Your task to perform on an android device: Do I have any events today? Image 0: 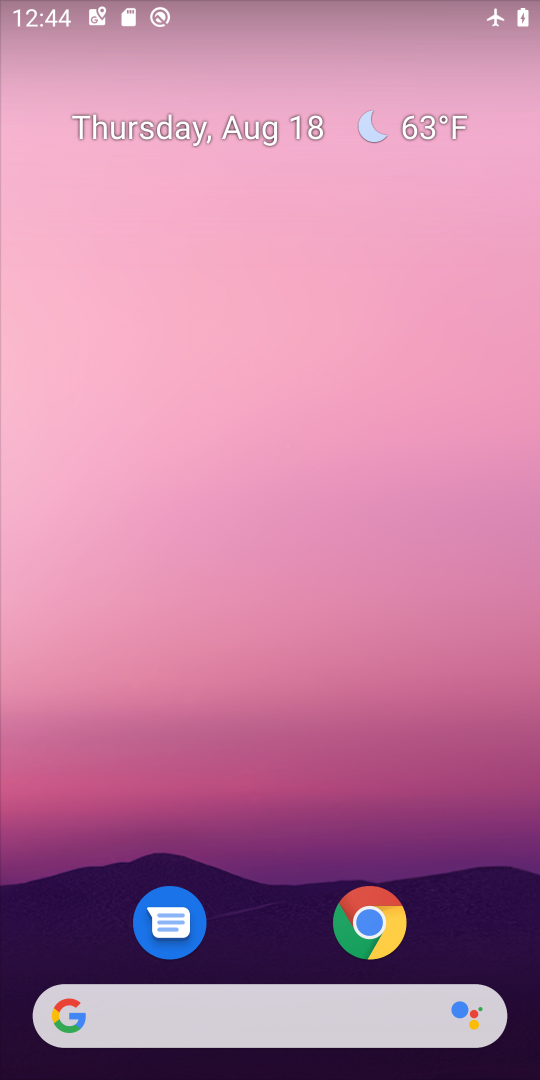
Step 0: drag from (276, 893) to (234, 383)
Your task to perform on an android device: Do I have any events today? Image 1: 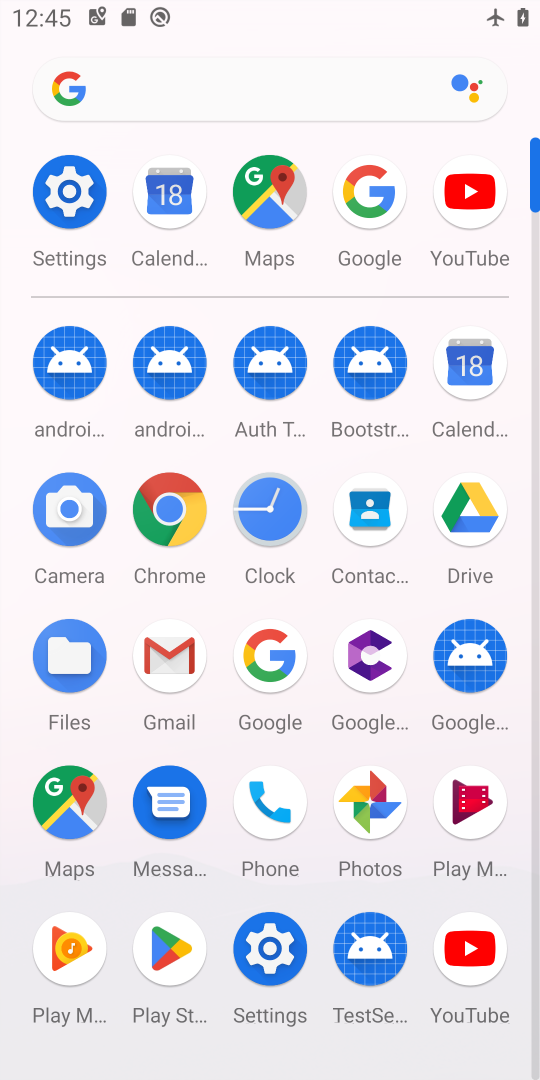
Step 1: click (465, 369)
Your task to perform on an android device: Do I have any events today? Image 2: 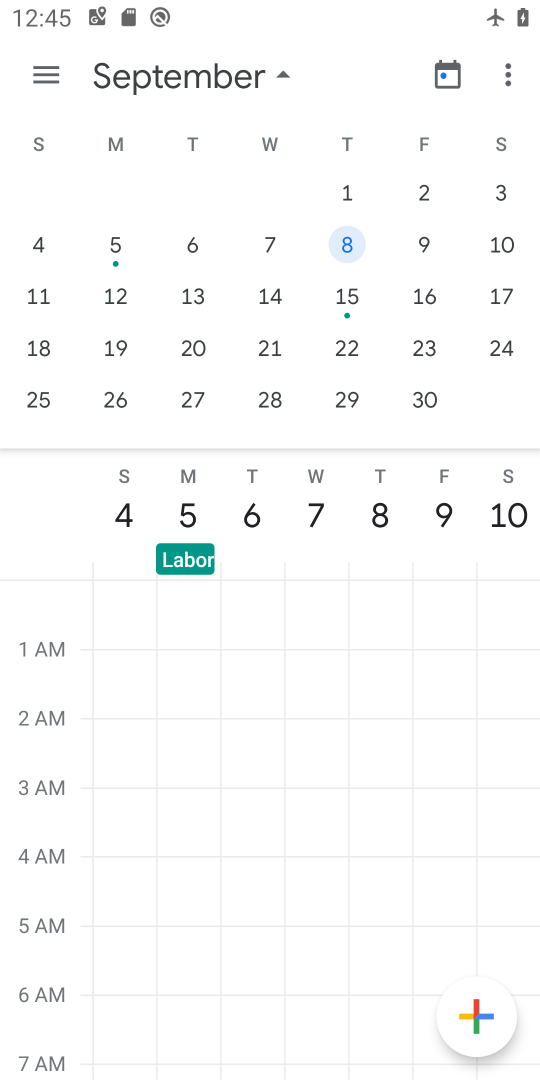
Step 2: drag from (93, 304) to (508, 286)
Your task to perform on an android device: Do I have any events today? Image 3: 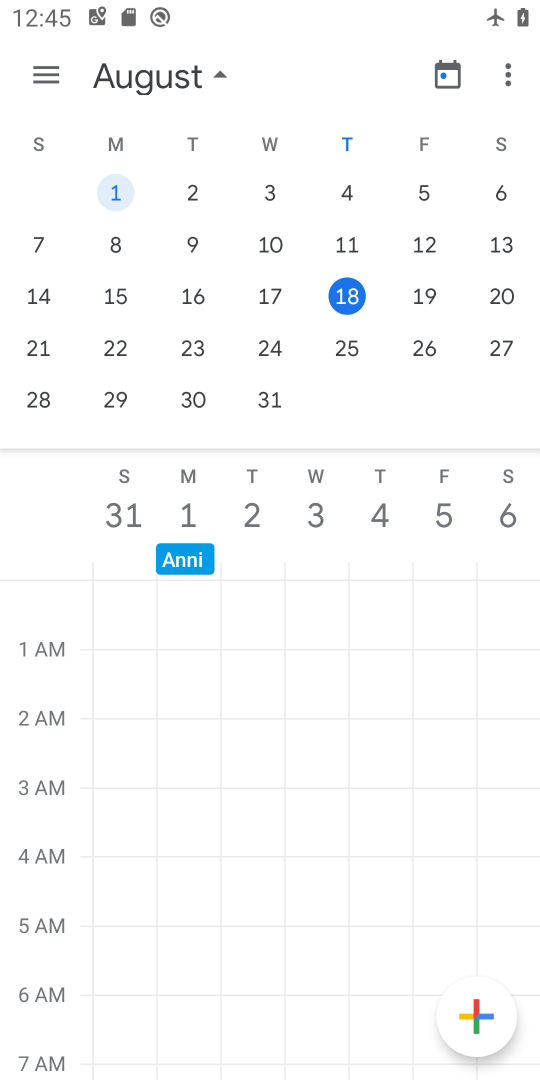
Step 3: click (355, 292)
Your task to perform on an android device: Do I have any events today? Image 4: 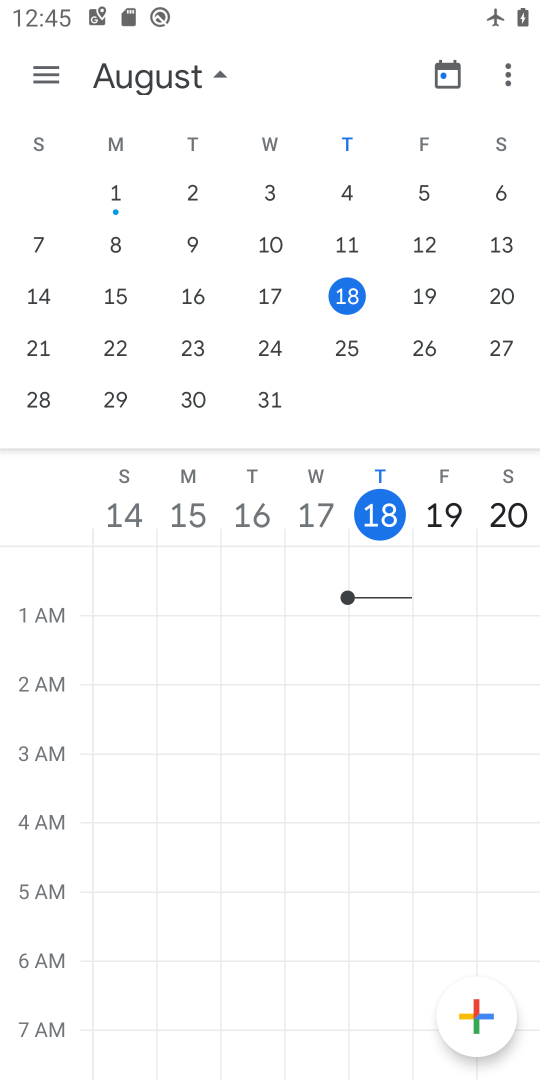
Step 4: click (380, 513)
Your task to perform on an android device: Do I have any events today? Image 5: 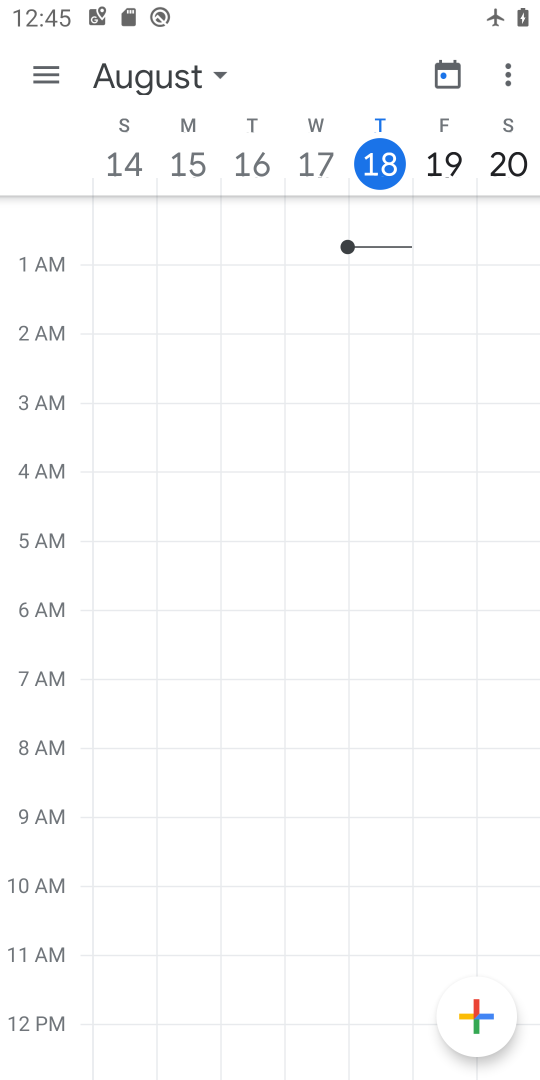
Step 5: click (389, 155)
Your task to perform on an android device: Do I have any events today? Image 6: 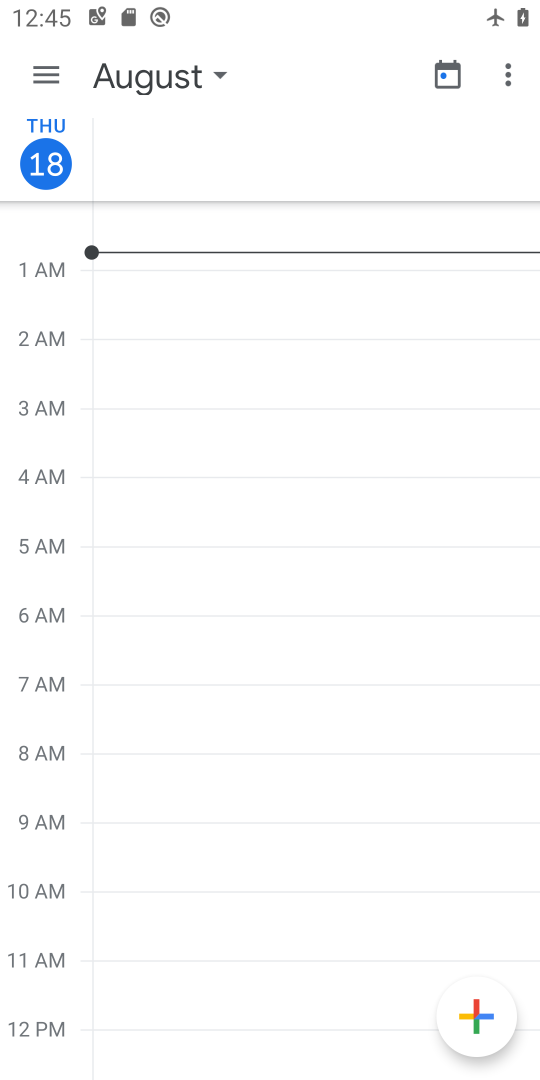
Step 6: task complete